Your task to perform on an android device: Open the web browser Image 0: 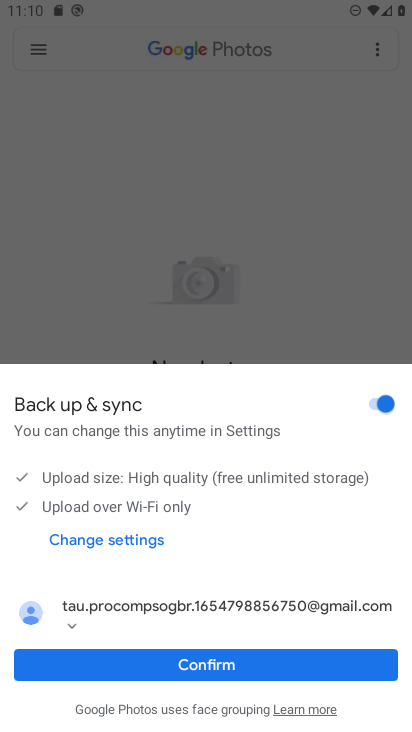
Step 0: press home button
Your task to perform on an android device: Open the web browser Image 1: 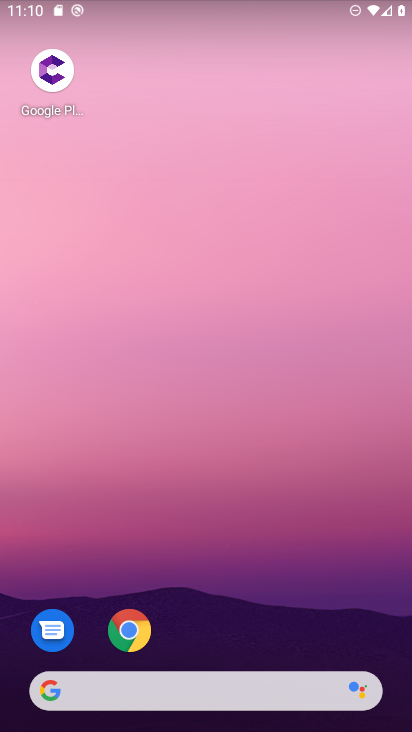
Step 1: click (125, 645)
Your task to perform on an android device: Open the web browser Image 2: 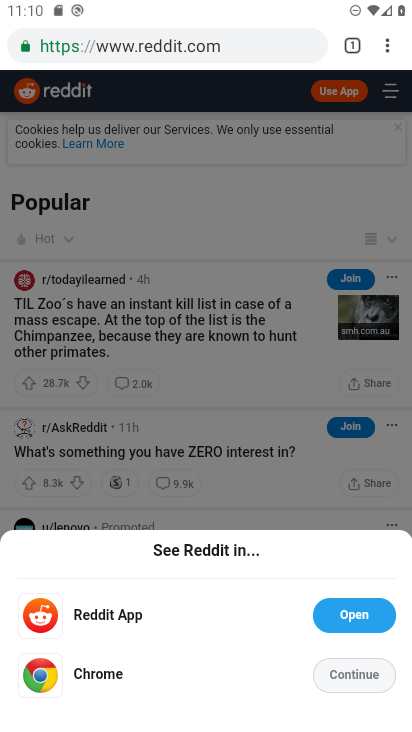
Step 2: task complete